Your task to perform on an android device: Open calendar and show me the second week of next month Image 0: 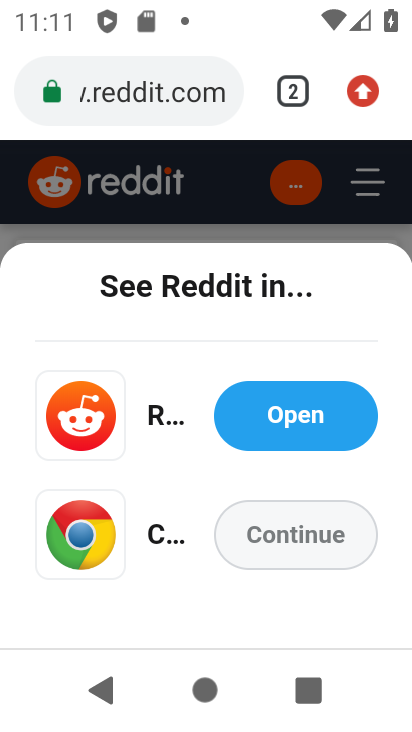
Step 0: press home button
Your task to perform on an android device: Open calendar and show me the second week of next month Image 1: 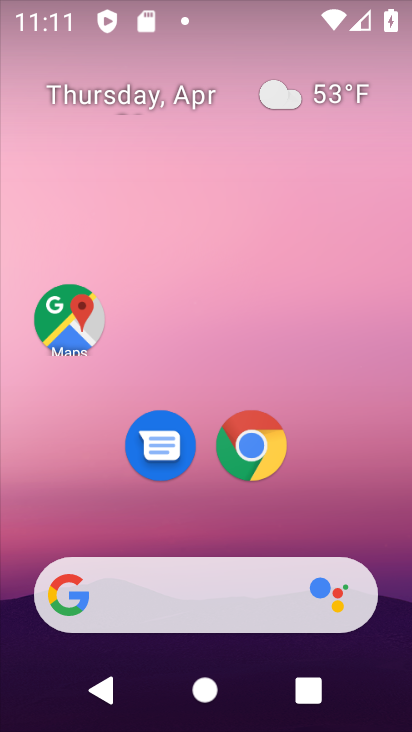
Step 1: drag from (152, 590) to (290, 111)
Your task to perform on an android device: Open calendar and show me the second week of next month Image 2: 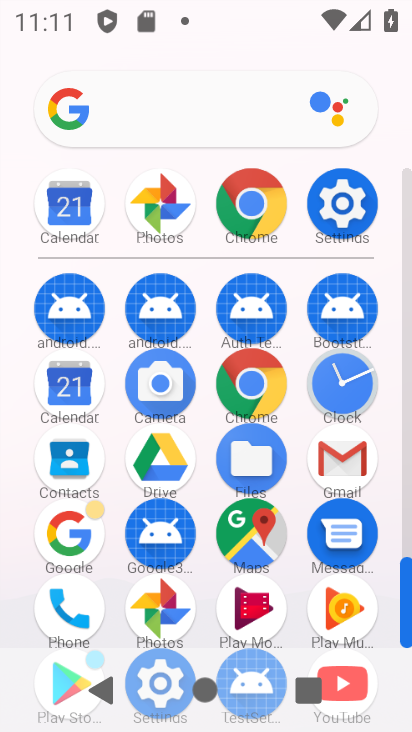
Step 2: click (65, 381)
Your task to perform on an android device: Open calendar and show me the second week of next month Image 3: 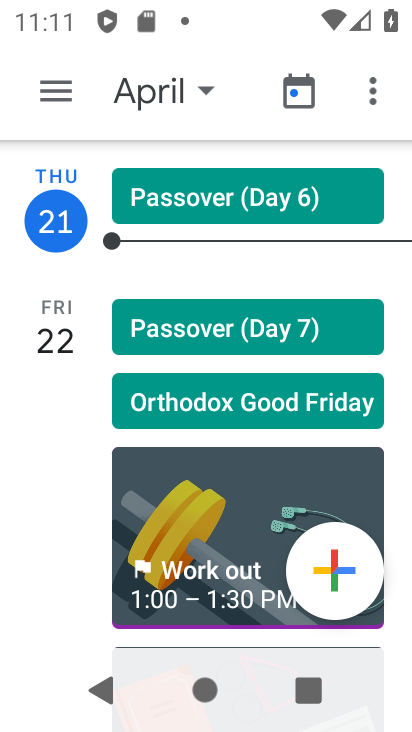
Step 3: click (149, 98)
Your task to perform on an android device: Open calendar and show me the second week of next month Image 4: 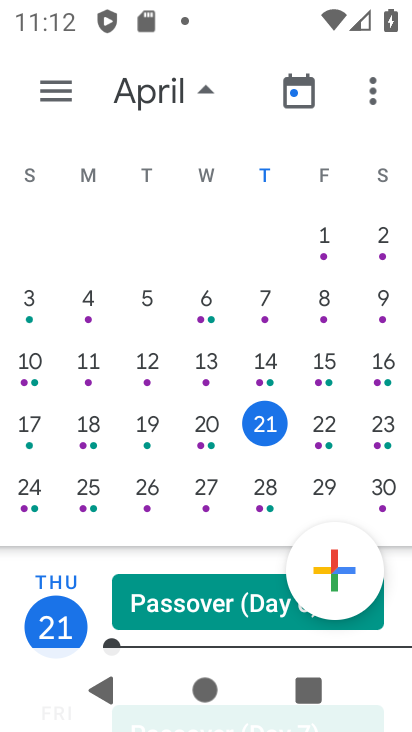
Step 4: drag from (369, 394) to (9, 415)
Your task to perform on an android device: Open calendar and show me the second week of next month Image 5: 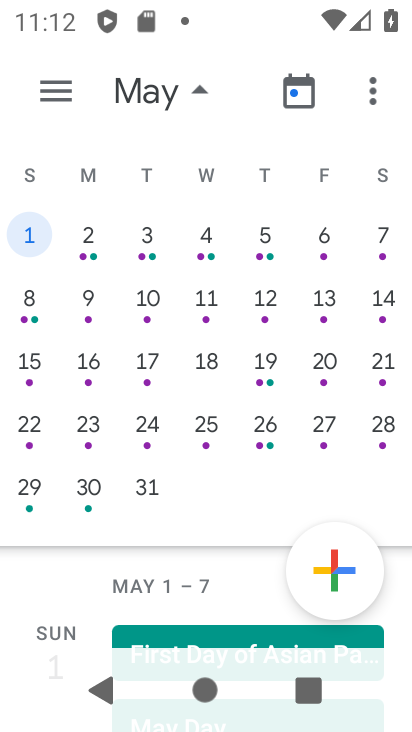
Step 5: click (24, 299)
Your task to perform on an android device: Open calendar and show me the second week of next month Image 6: 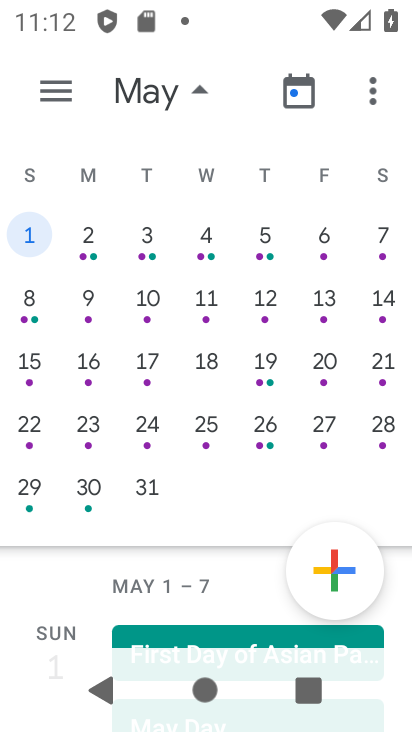
Step 6: click (31, 299)
Your task to perform on an android device: Open calendar and show me the second week of next month Image 7: 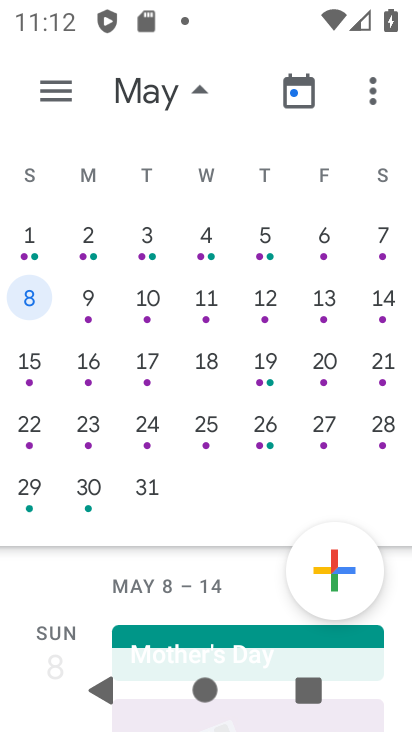
Step 7: click (58, 89)
Your task to perform on an android device: Open calendar and show me the second week of next month Image 8: 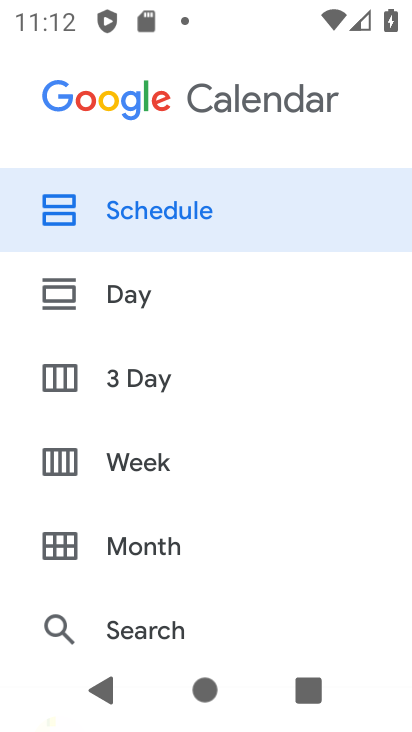
Step 8: click (126, 467)
Your task to perform on an android device: Open calendar and show me the second week of next month Image 9: 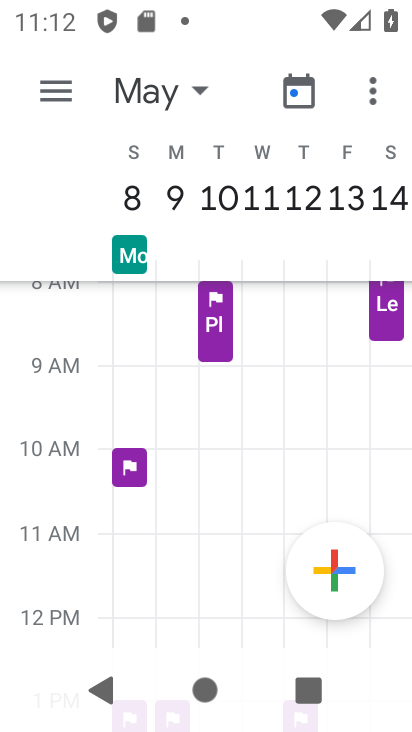
Step 9: task complete